Your task to perform on an android device: Go to Reddit.com Image 0: 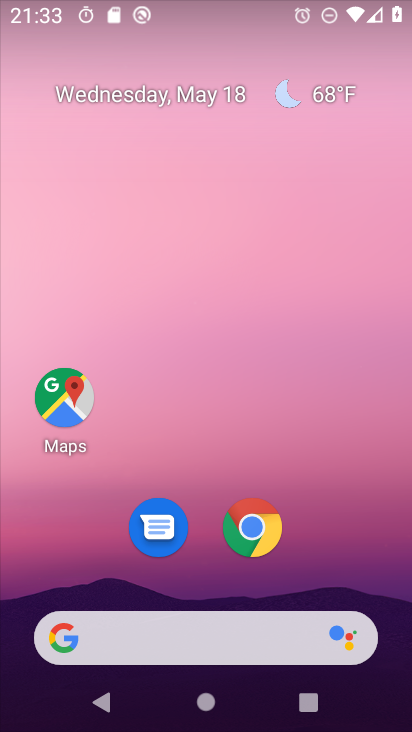
Step 0: click (249, 512)
Your task to perform on an android device: Go to Reddit.com Image 1: 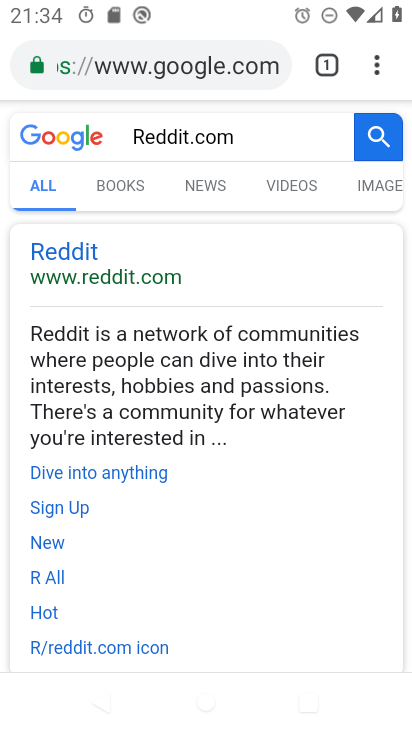
Step 1: click (275, 57)
Your task to perform on an android device: Go to Reddit.com Image 2: 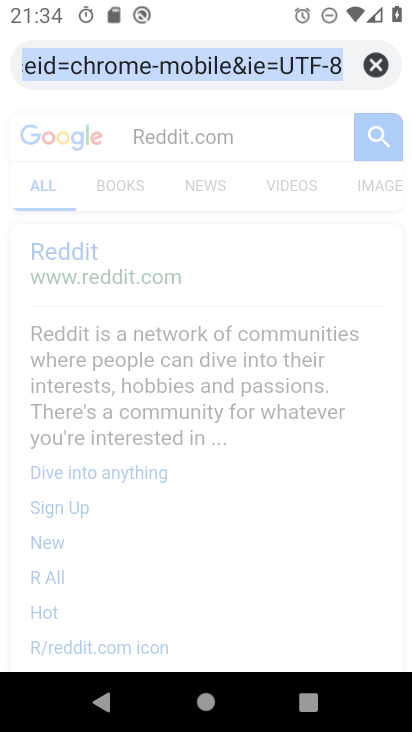
Step 2: click (387, 66)
Your task to perform on an android device: Go to Reddit.com Image 3: 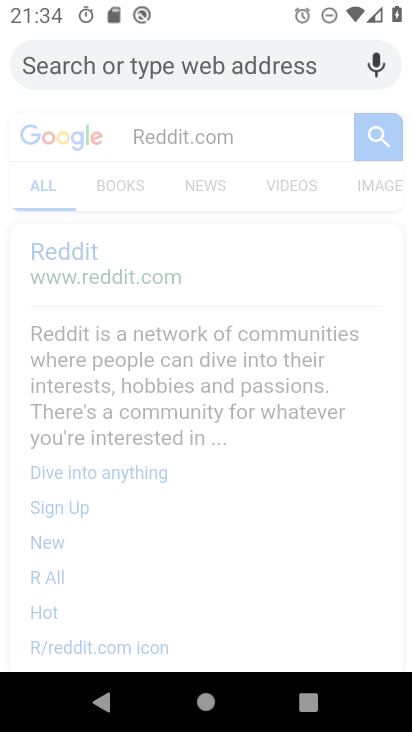
Step 3: type "Reddit.com"
Your task to perform on an android device: Go to Reddit.com Image 4: 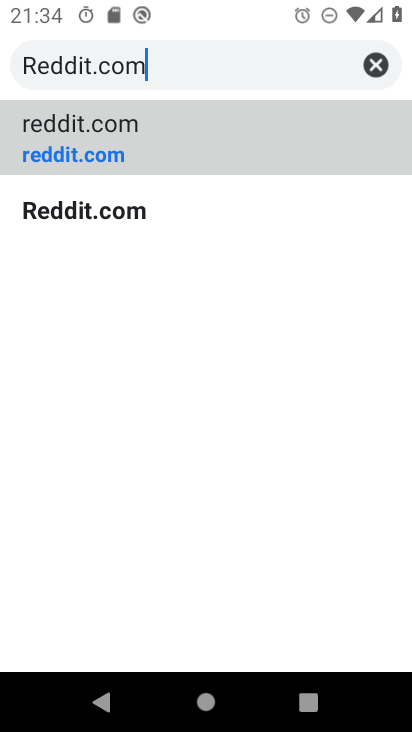
Step 4: click (41, 209)
Your task to perform on an android device: Go to Reddit.com Image 5: 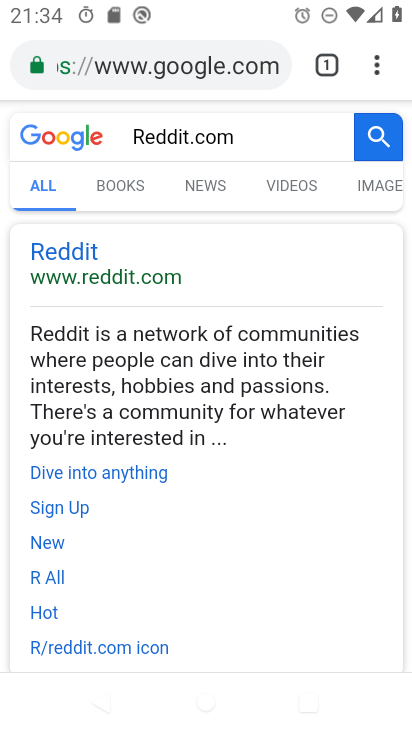
Step 5: task complete